Your task to perform on an android device: What is the news today? Image 0: 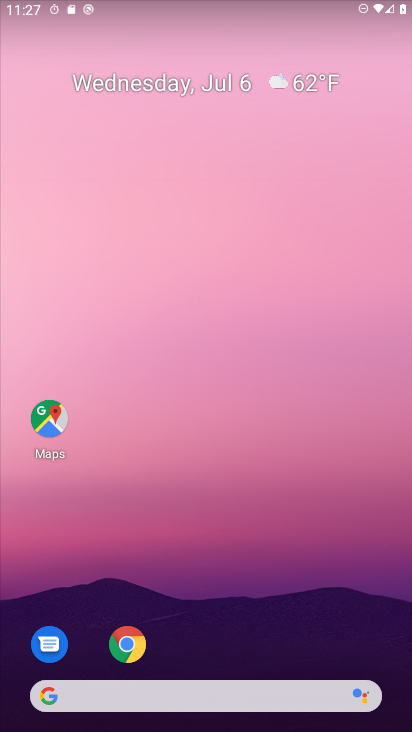
Step 0: press home button
Your task to perform on an android device: What is the news today? Image 1: 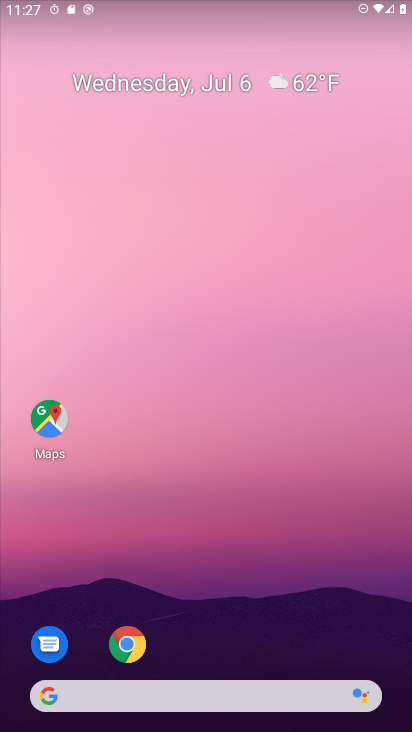
Step 1: click (53, 700)
Your task to perform on an android device: What is the news today? Image 2: 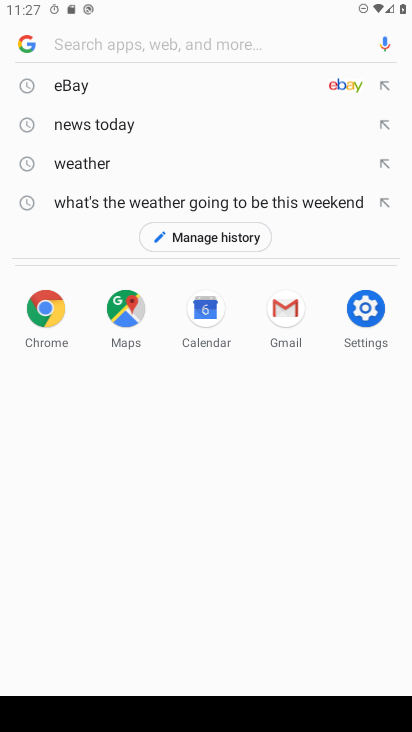
Step 2: click (99, 131)
Your task to perform on an android device: What is the news today? Image 3: 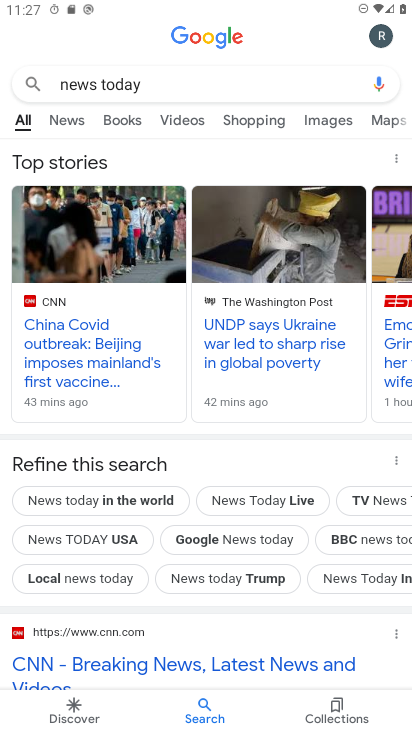
Step 3: task complete